Your task to perform on an android device: When is my next appointment? Image 0: 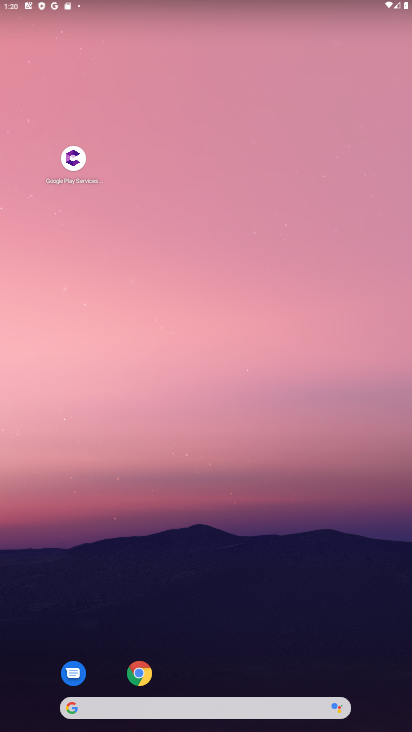
Step 0: drag from (284, 612) to (234, 79)
Your task to perform on an android device: When is my next appointment? Image 1: 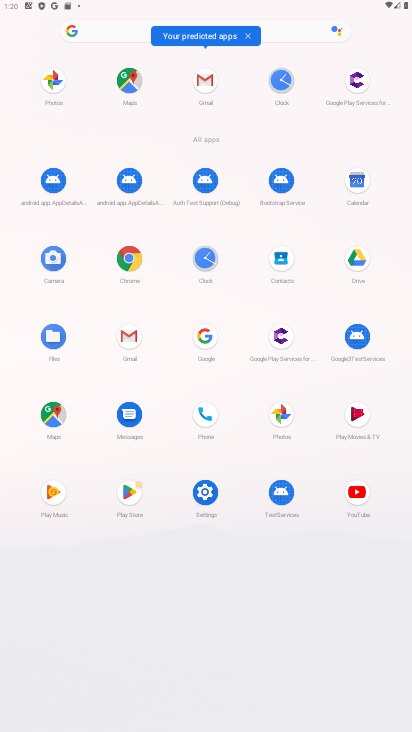
Step 1: click (361, 186)
Your task to perform on an android device: When is my next appointment? Image 2: 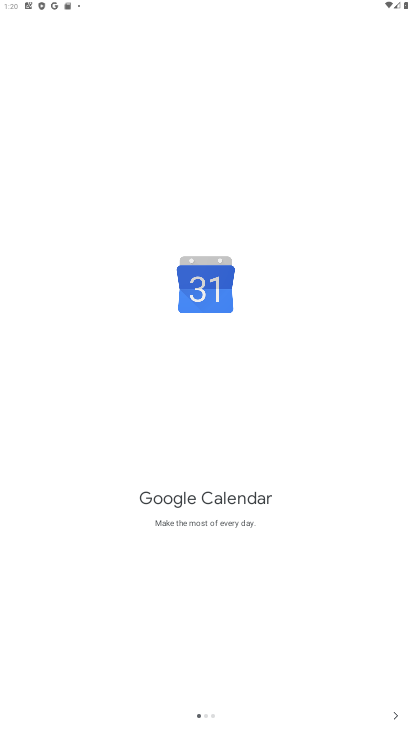
Step 2: click (398, 720)
Your task to perform on an android device: When is my next appointment? Image 3: 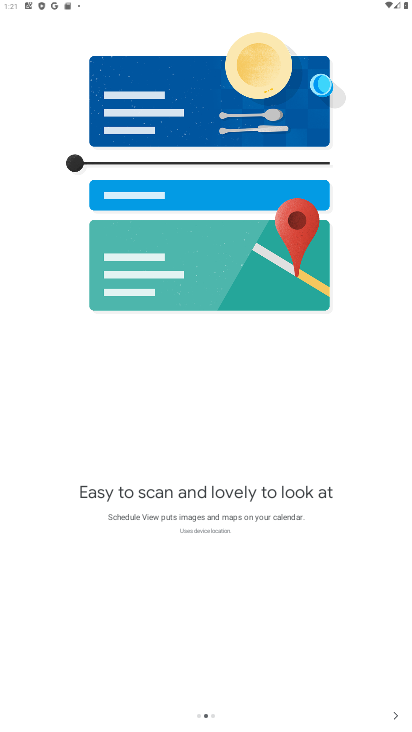
Step 3: click (396, 720)
Your task to perform on an android device: When is my next appointment? Image 4: 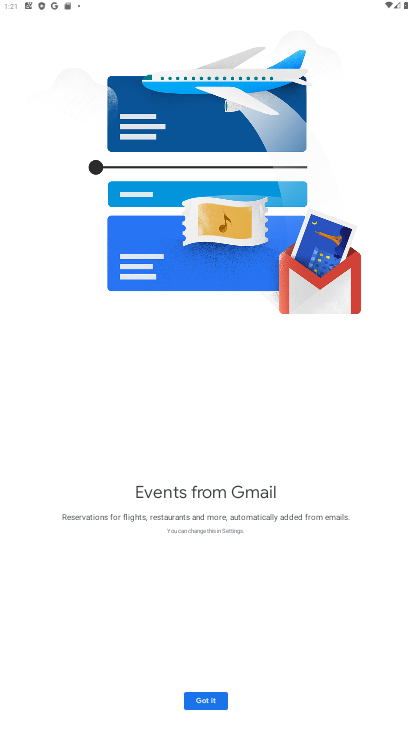
Step 4: click (218, 694)
Your task to perform on an android device: When is my next appointment? Image 5: 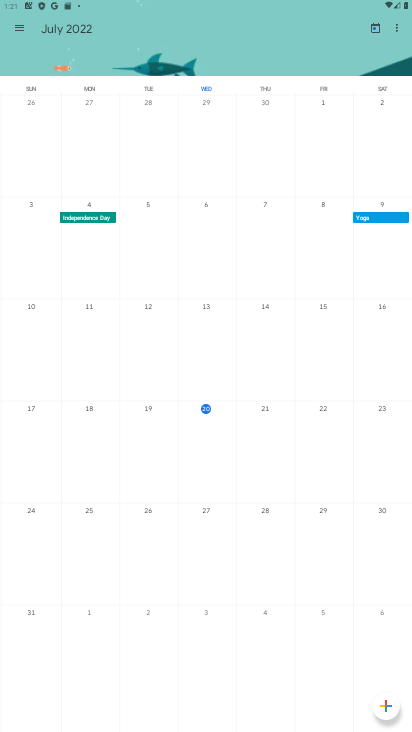
Step 5: click (21, 28)
Your task to perform on an android device: When is my next appointment? Image 6: 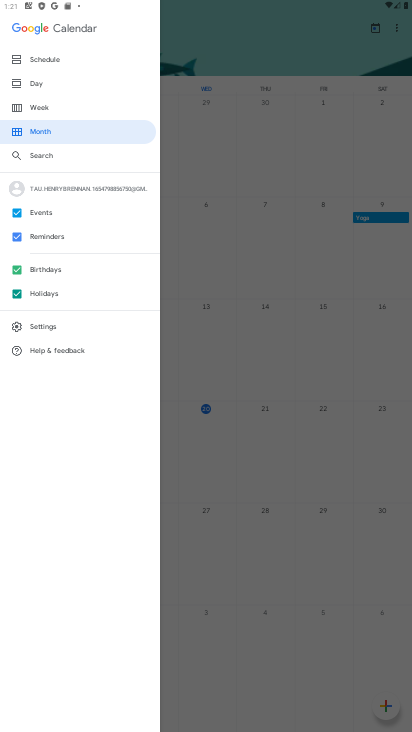
Step 6: click (61, 54)
Your task to perform on an android device: When is my next appointment? Image 7: 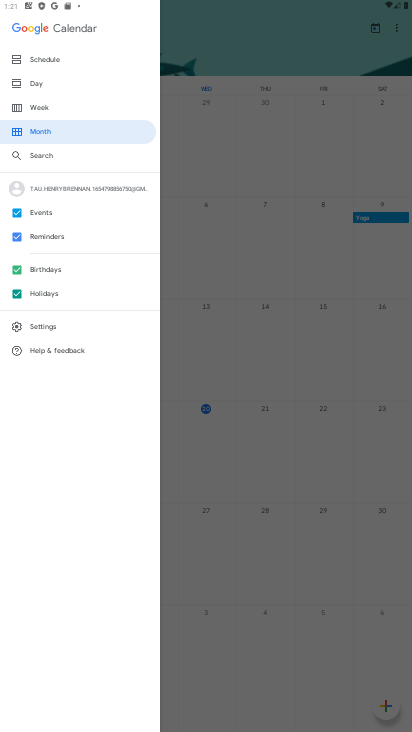
Step 7: click (37, 55)
Your task to perform on an android device: When is my next appointment? Image 8: 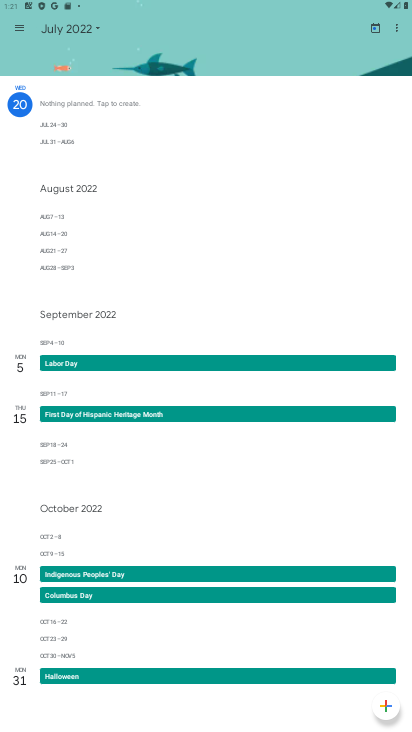
Step 8: task complete